Your task to perform on an android device: Go to Wikipedia Image 0: 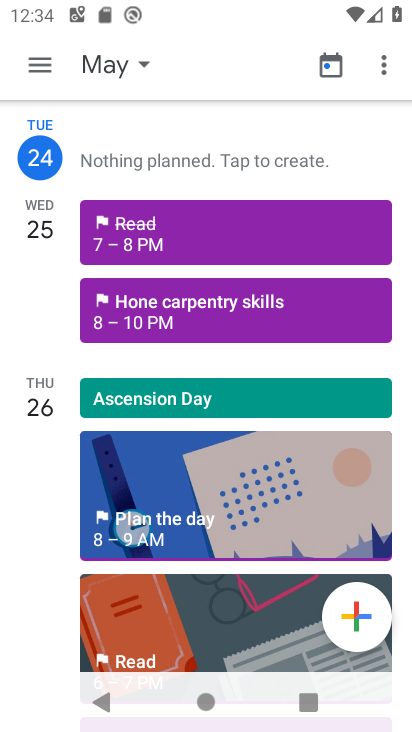
Step 0: press home button
Your task to perform on an android device: Go to Wikipedia Image 1: 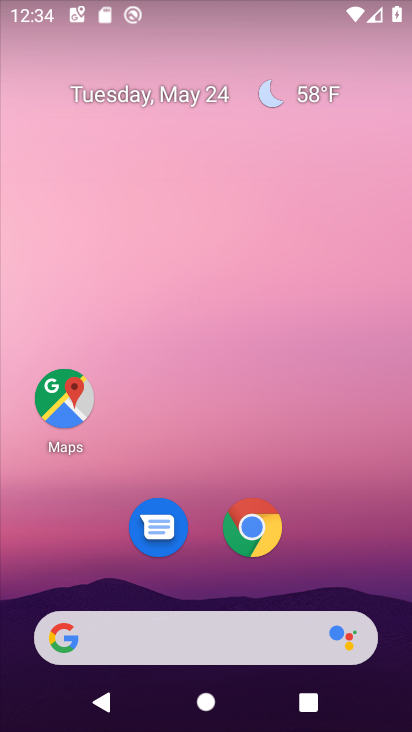
Step 1: click (264, 522)
Your task to perform on an android device: Go to Wikipedia Image 2: 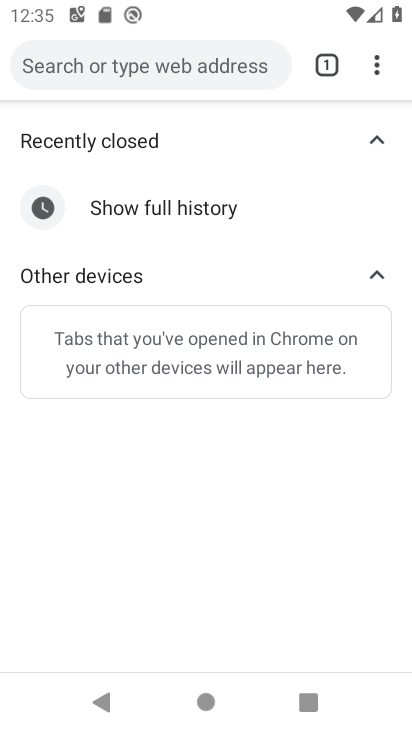
Step 2: click (316, 72)
Your task to perform on an android device: Go to Wikipedia Image 3: 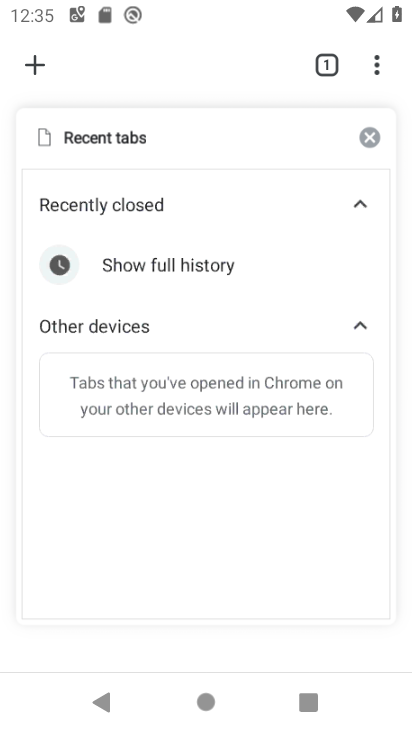
Step 3: click (31, 67)
Your task to perform on an android device: Go to Wikipedia Image 4: 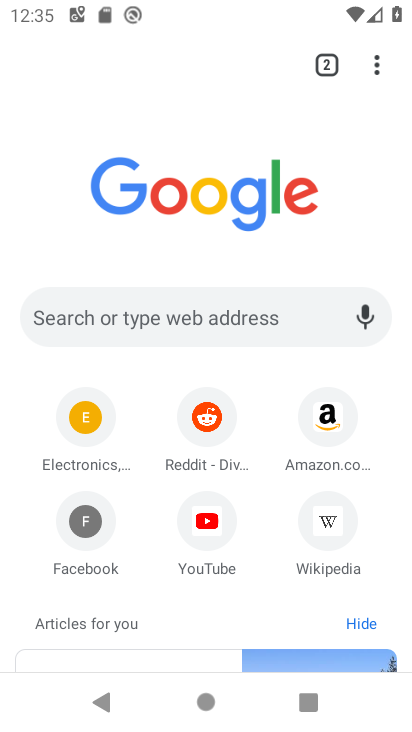
Step 4: click (339, 514)
Your task to perform on an android device: Go to Wikipedia Image 5: 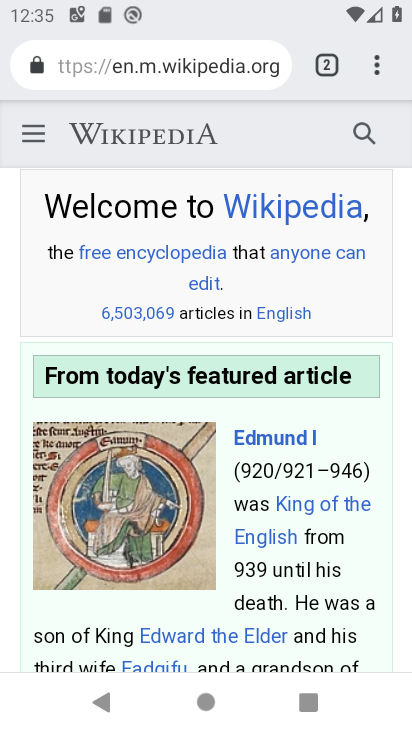
Step 5: task complete